Your task to perform on an android device: add a contact Image 0: 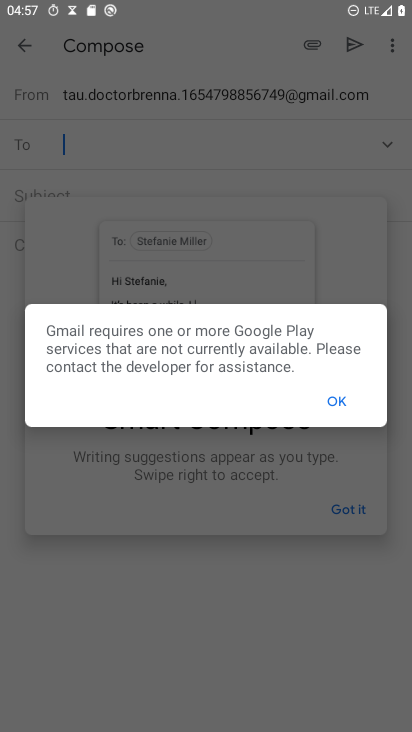
Step 0: press home button
Your task to perform on an android device: add a contact Image 1: 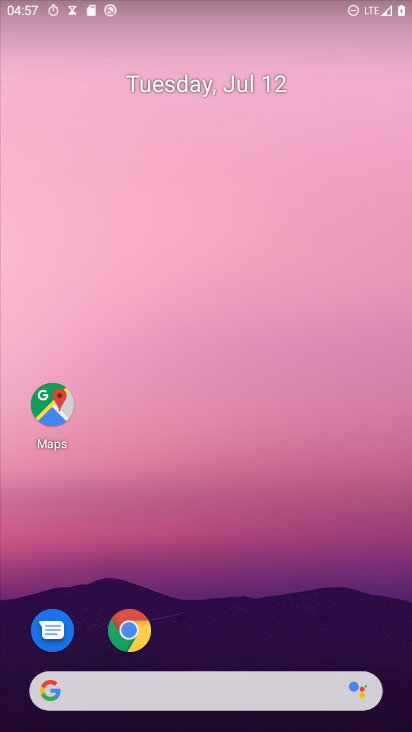
Step 1: drag from (269, 671) to (392, 605)
Your task to perform on an android device: add a contact Image 2: 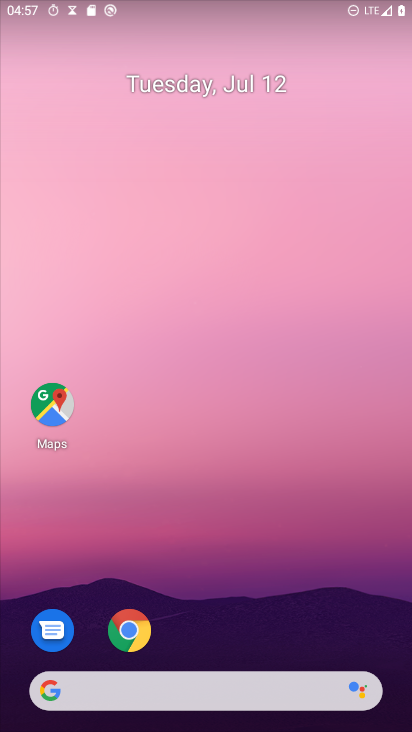
Step 2: drag from (286, 638) to (291, 7)
Your task to perform on an android device: add a contact Image 3: 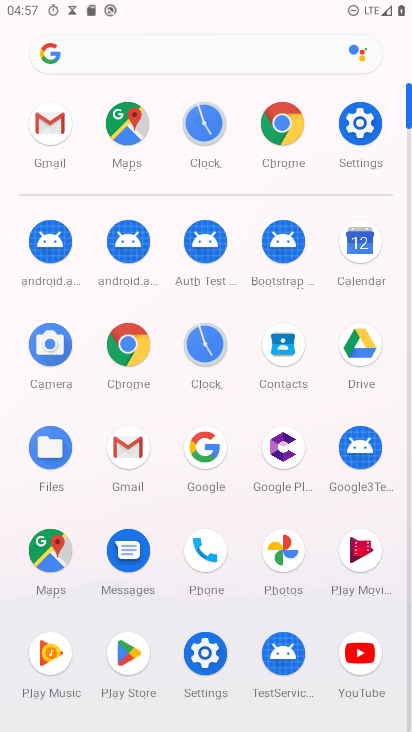
Step 3: click (292, 349)
Your task to perform on an android device: add a contact Image 4: 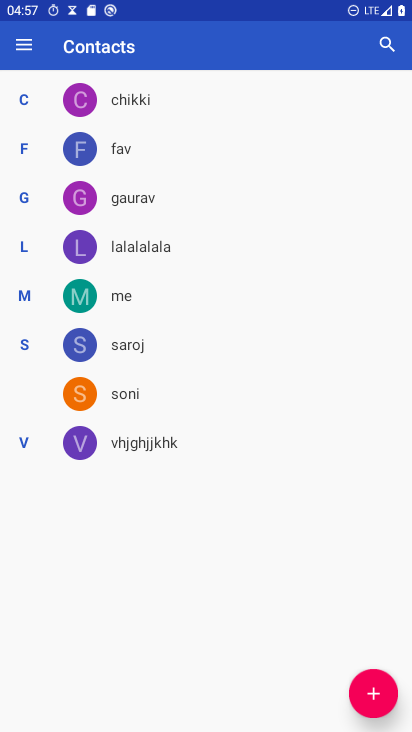
Step 4: click (376, 695)
Your task to perform on an android device: add a contact Image 5: 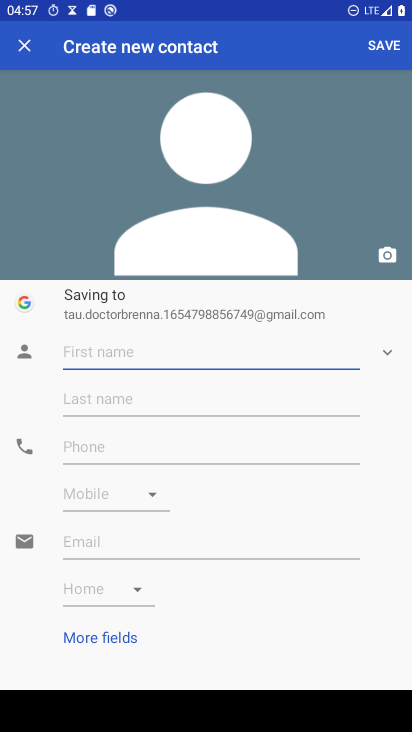
Step 5: type "homies"
Your task to perform on an android device: add a contact Image 6: 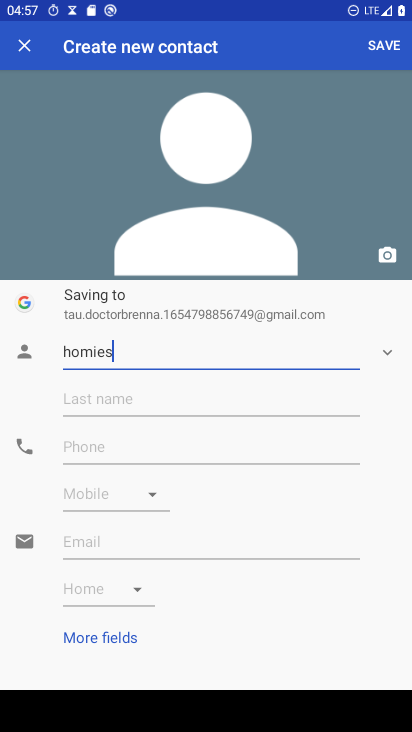
Step 6: click (207, 447)
Your task to perform on an android device: add a contact Image 7: 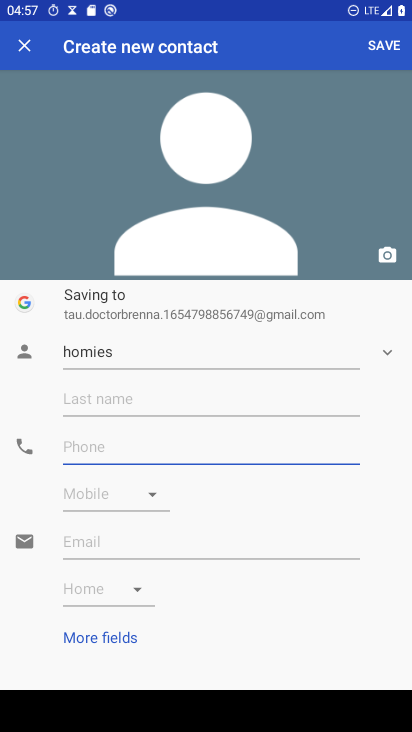
Step 7: type "87656778887"
Your task to perform on an android device: add a contact Image 8: 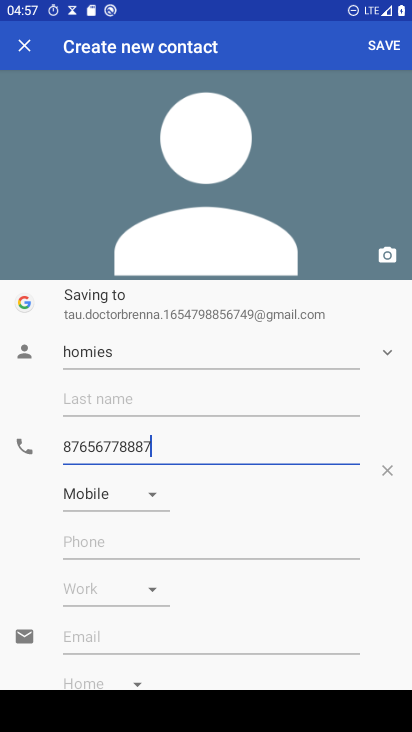
Step 8: click (379, 38)
Your task to perform on an android device: add a contact Image 9: 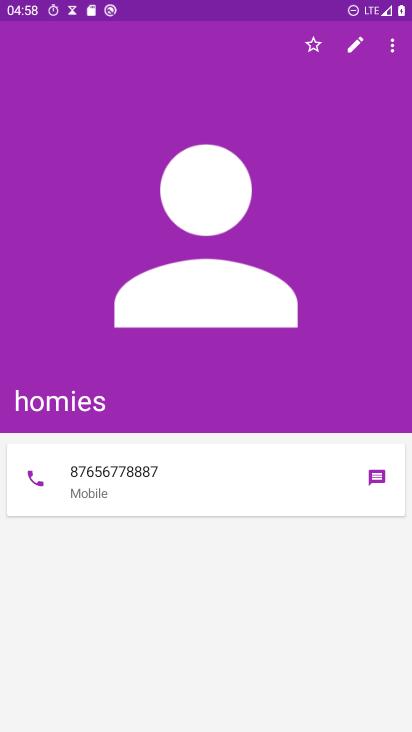
Step 9: task complete